Your task to perform on an android device: Go to eBay Image 0: 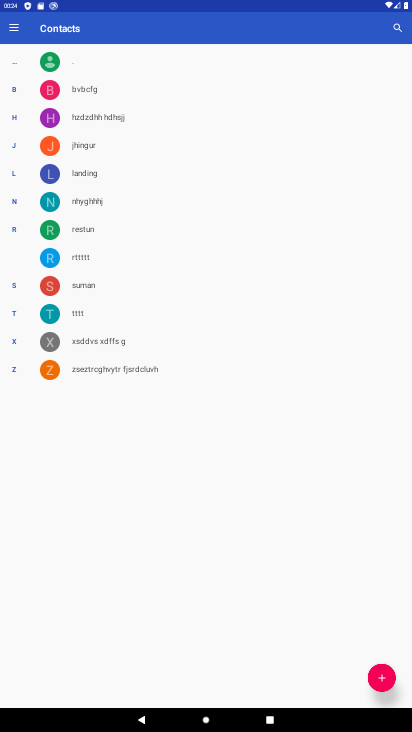
Step 0: press home button
Your task to perform on an android device: Go to eBay Image 1: 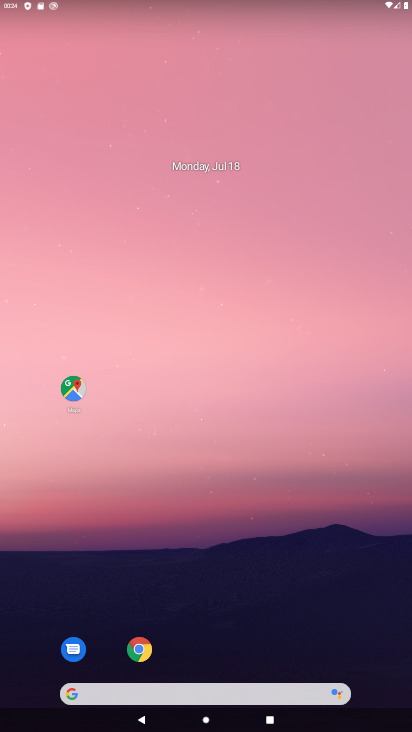
Step 1: drag from (190, 511) to (248, 28)
Your task to perform on an android device: Go to eBay Image 2: 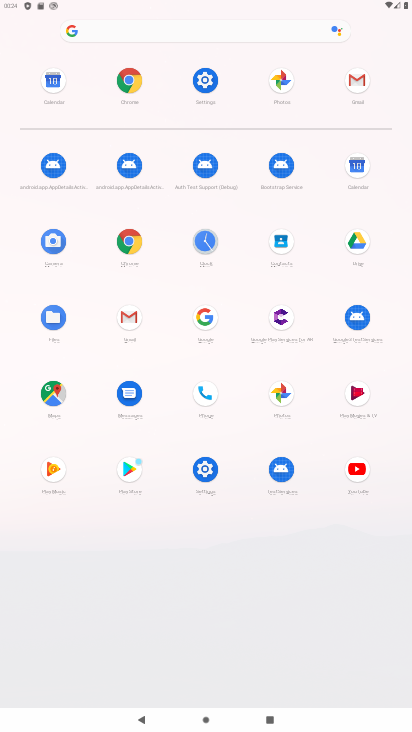
Step 2: click (123, 262)
Your task to perform on an android device: Go to eBay Image 3: 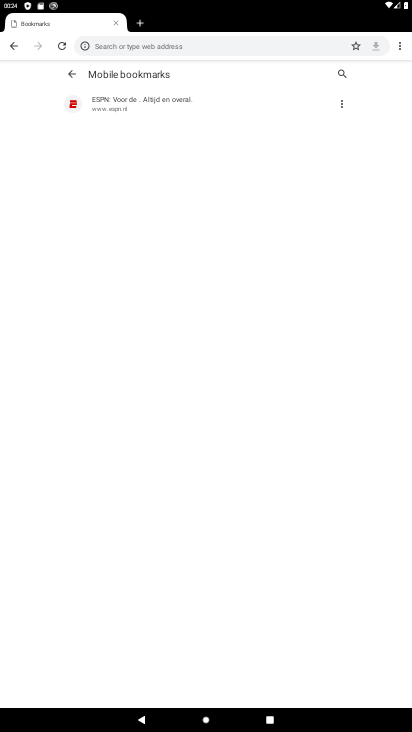
Step 3: click (14, 38)
Your task to perform on an android device: Go to eBay Image 4: 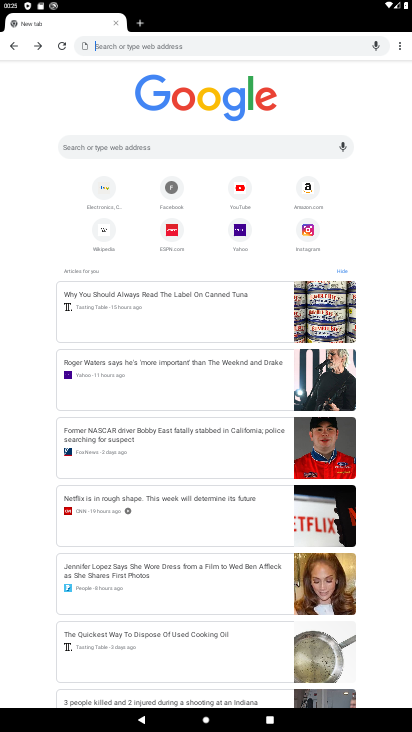
Step 4: click (110, 197)
Your task to perform on an android device: Go to eBay Image 5: 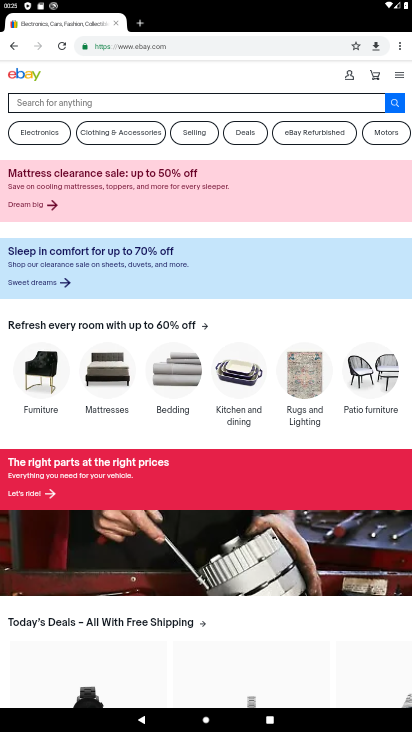
Step 5: task complete